Your task to perform on an android device: open app "Walmart Shopping & Grocery" (install if not already installed) Image 0: 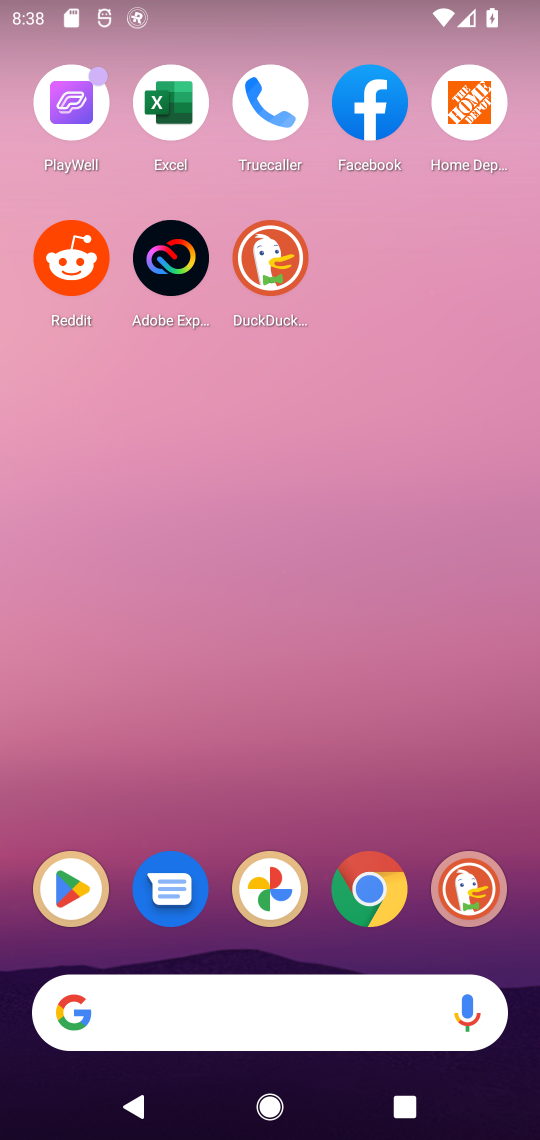
Step 0: press home button
Your task to perform on an android device: open app "Walmart Shopping & Grocery" (install if not already installed) Image 1: 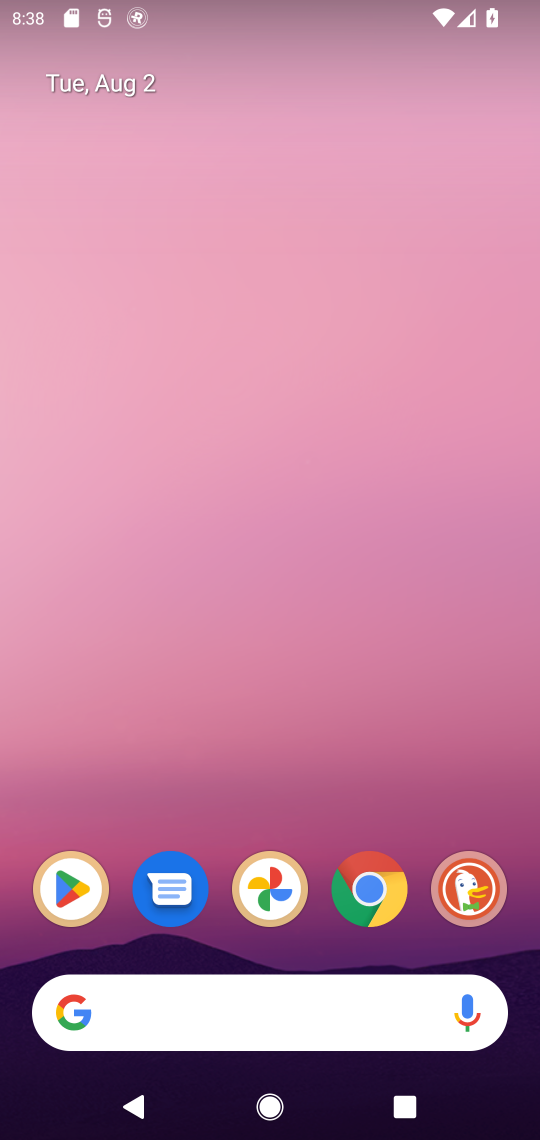
Step 1: click (78, 895)
Your task to perform on an android device: open app "Walmart Shopping & Grocery" (install if not already installed) Image 2: 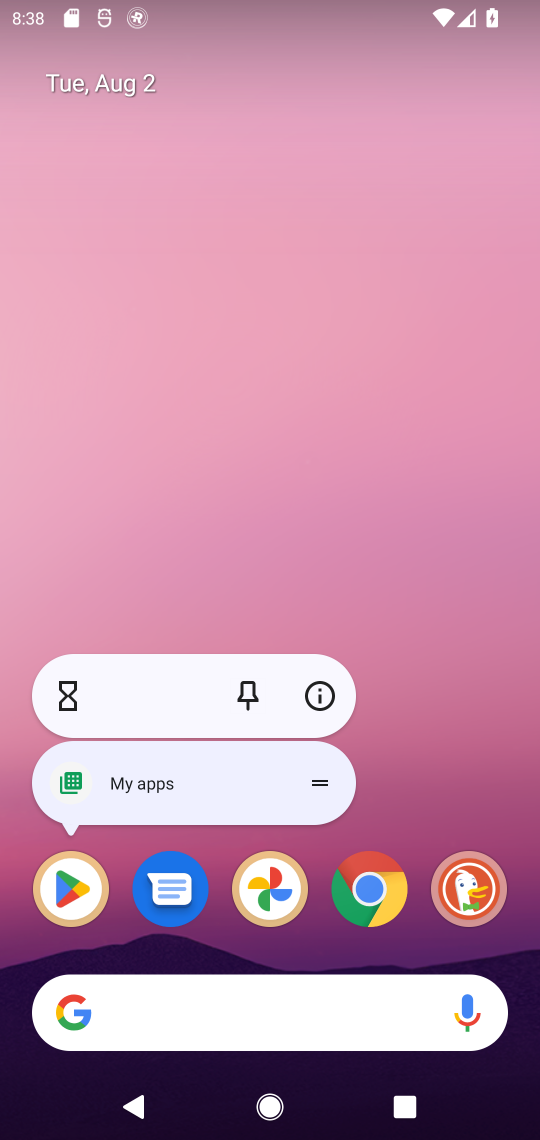
Step 2: click (68, 884)
Your task to perform on an android device: open app "Walmart Shopping & Grocery" (install if not already installed) Image 3: 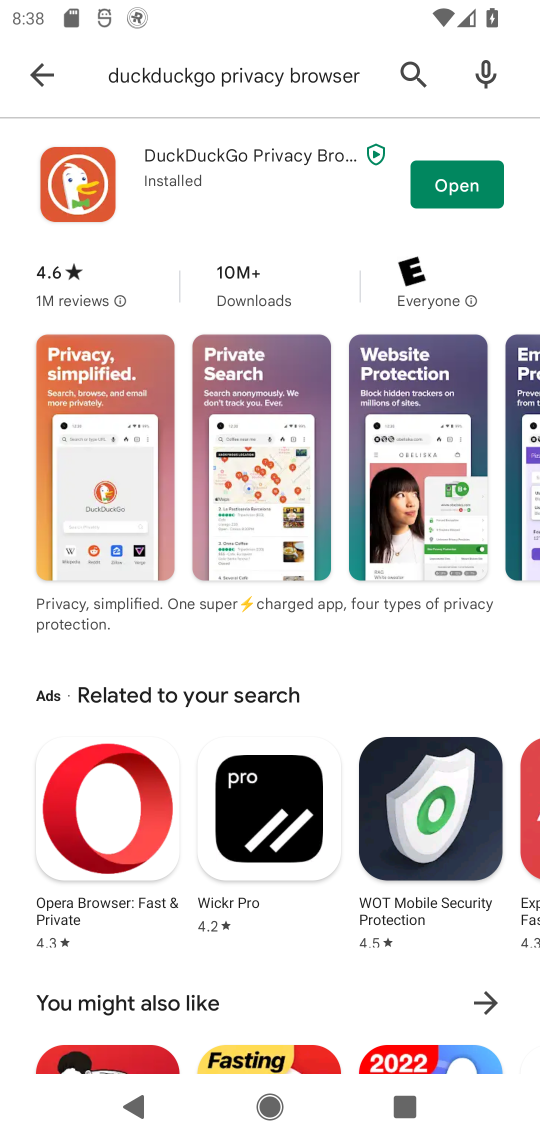
Step 3: click (404, 68)
Your task to perform on an android device: open app "Walmart Shopping & Grocery" (install if not already installed) Image 4: 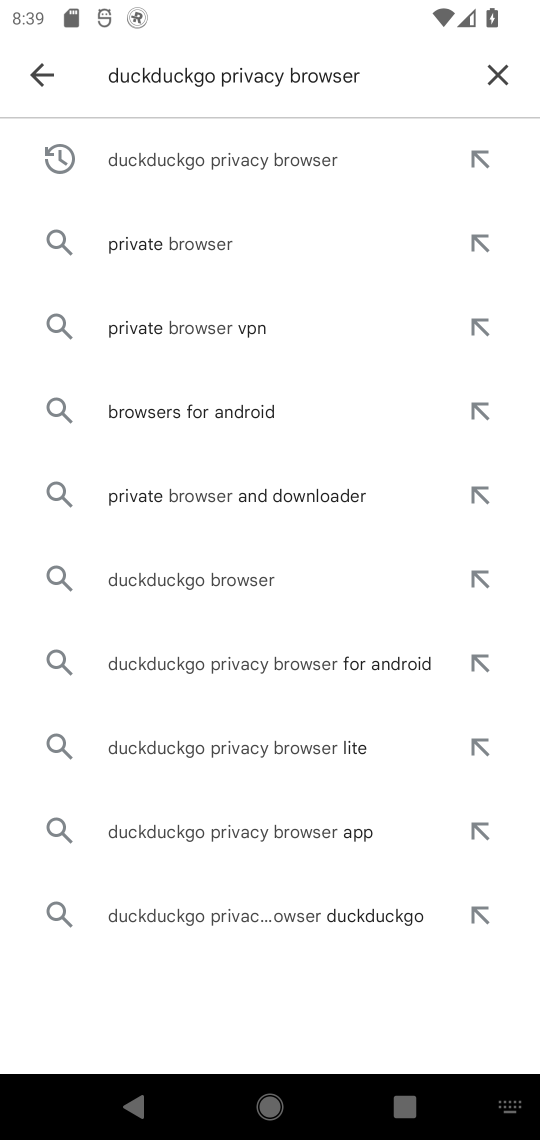
Step 4: click (490, 76)
Your task to perform on an android device: open app "Walmart Shopping & Grocery" (install if not already installed) Image 5: 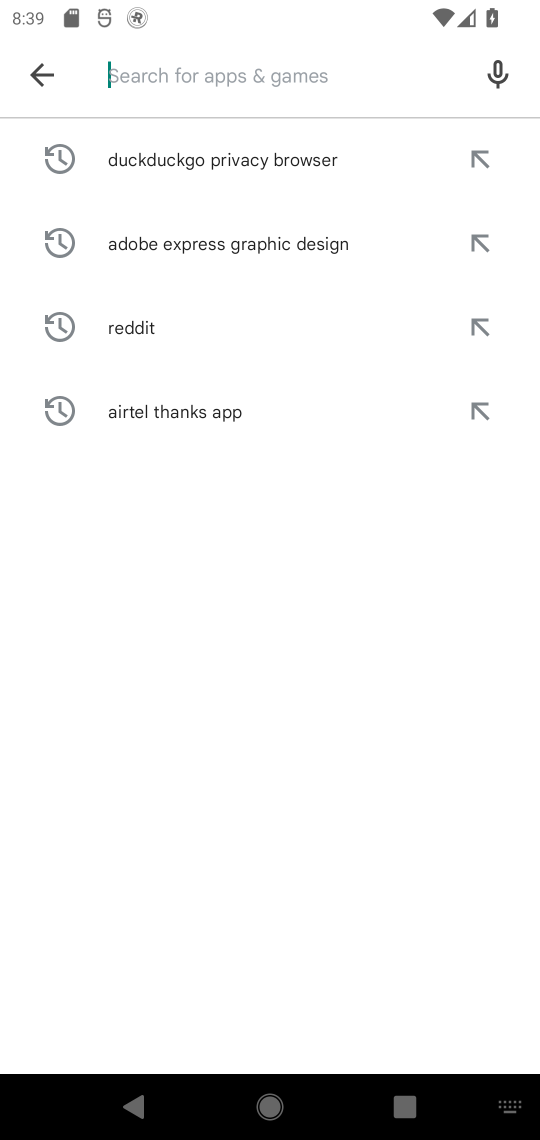
Step 5: type "Walmart Shopping & Grocery"
Your task to perform on an android device: open app "Walmart Shopping & Grocery" (install if not already installed) Image 6: 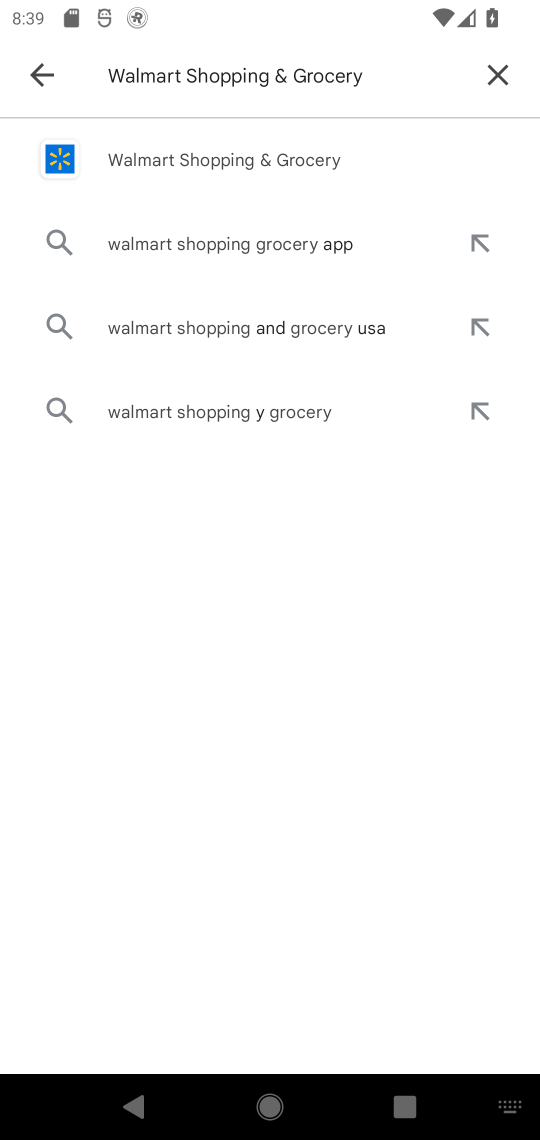
Step 6: click (290, 157)
Your task to perform on an android device: open app "Walmart Shopping & Grocery" (install if not already installed) Image 7: 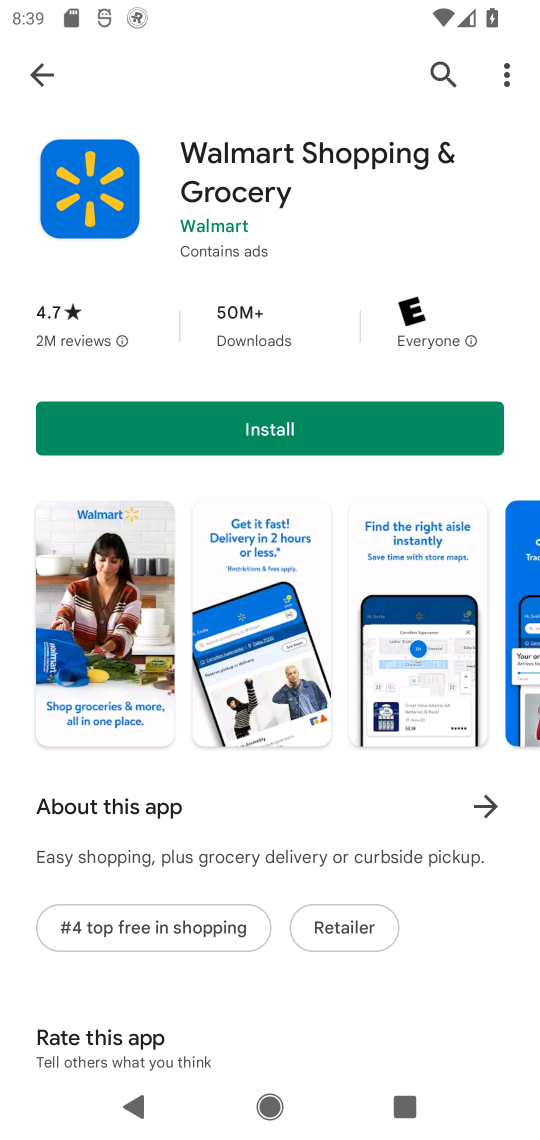
Step 7: click (289, 433)
Your task to perform on an android device: open app "Walmart Shopping & Grocery" (install if not already installed) Image 8: 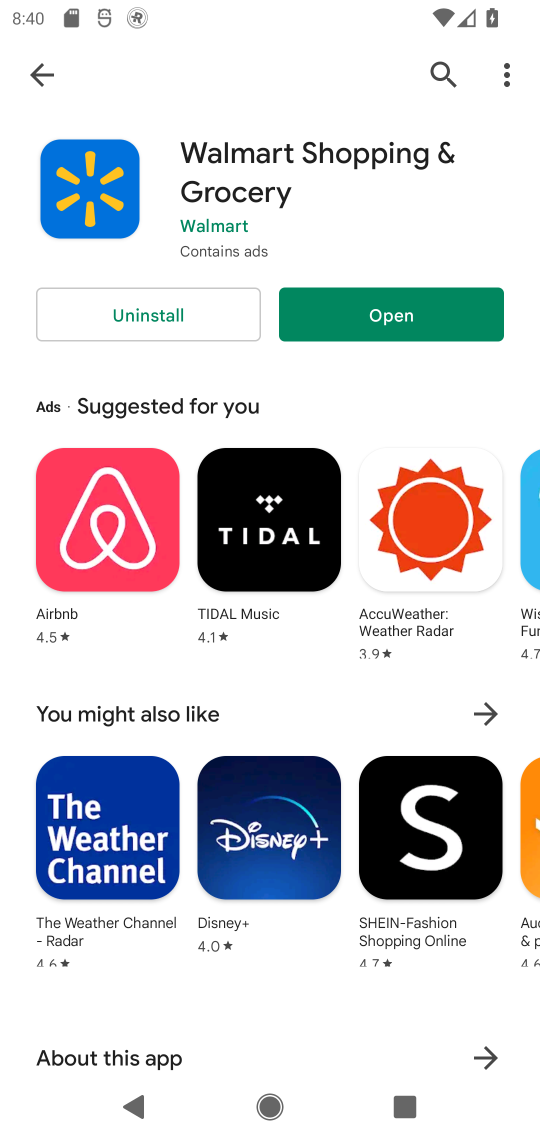
Step 8: click (362, 322)
Your task to perform on an android device: open app "Walmart Shopping & Grocery" (install if not already installed) Image 9: 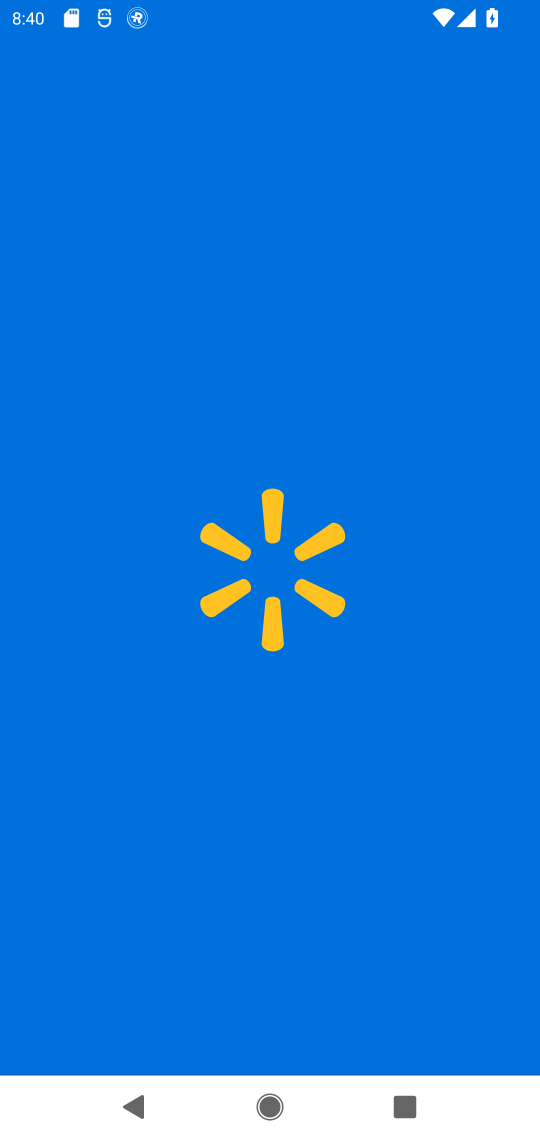
Step 9: task complete